Your task to perform on an android device: Open network settings Image 0: 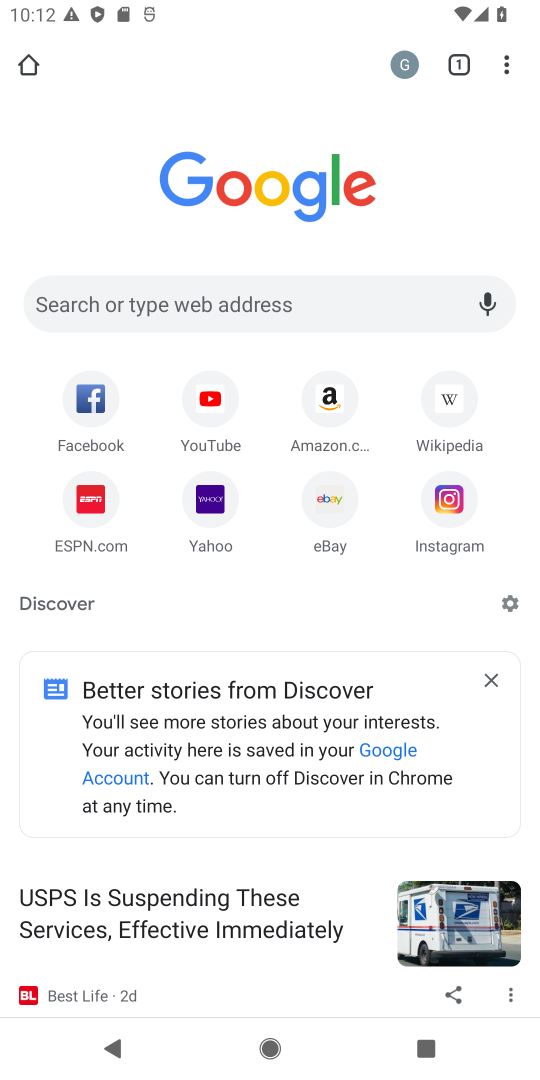
Step 0: click (507, 74)
Your task to perform on an android device: Open network settings Image 1: 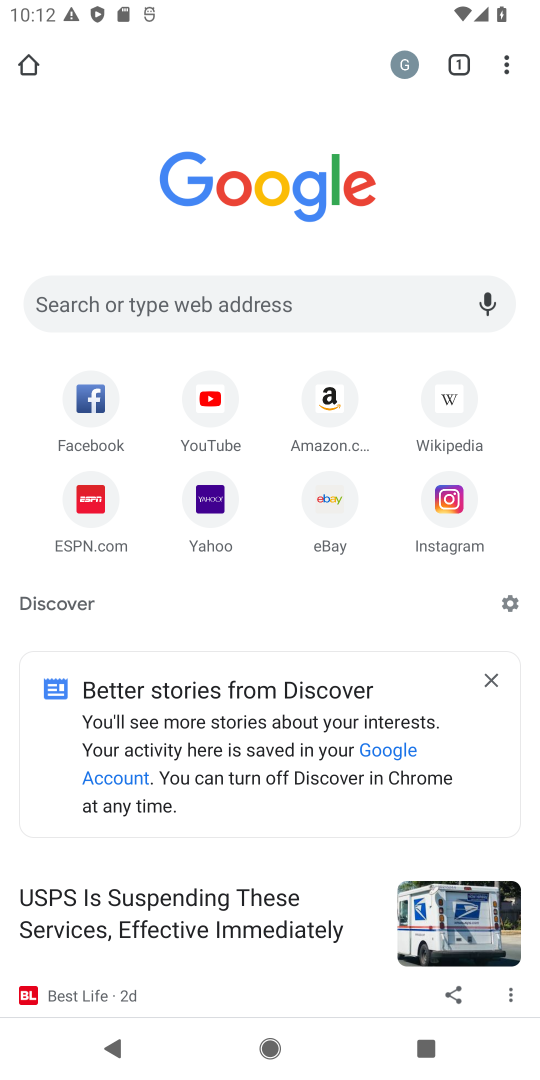
Step 1: click (507, 74)
Your task to perform on an android device: Open network settings Image 2: 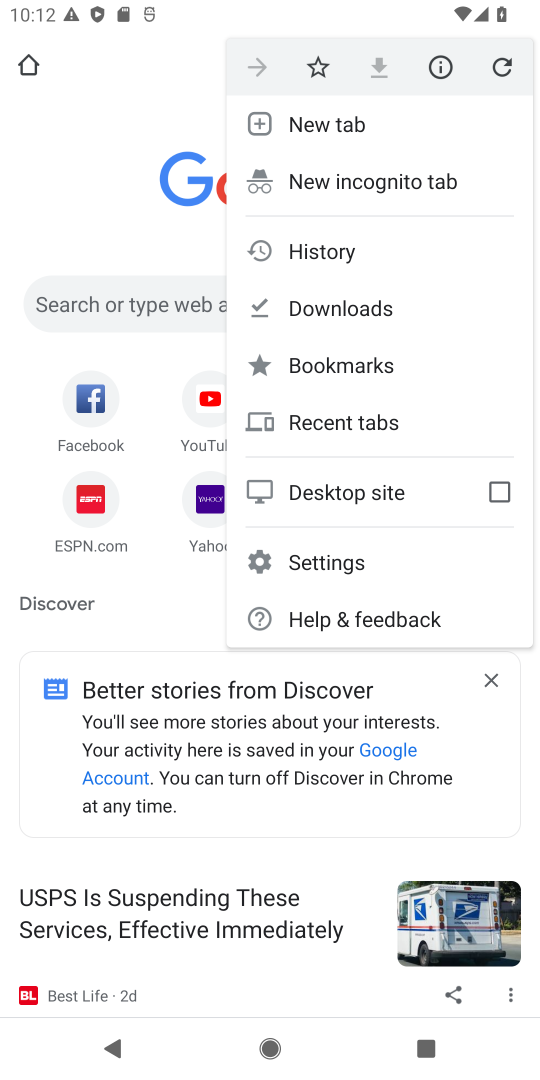
Step 2: click (119, 223)
Your task to perform on an android device: Open network settings Image 3: 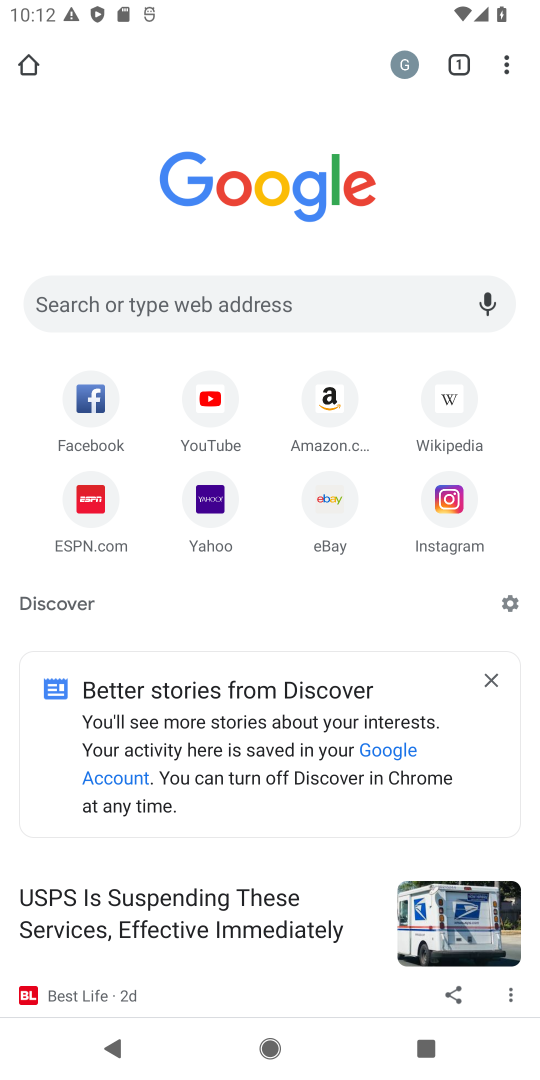
Step 3: press home button
Your task to perform on an android device: Open network settings Image 4: 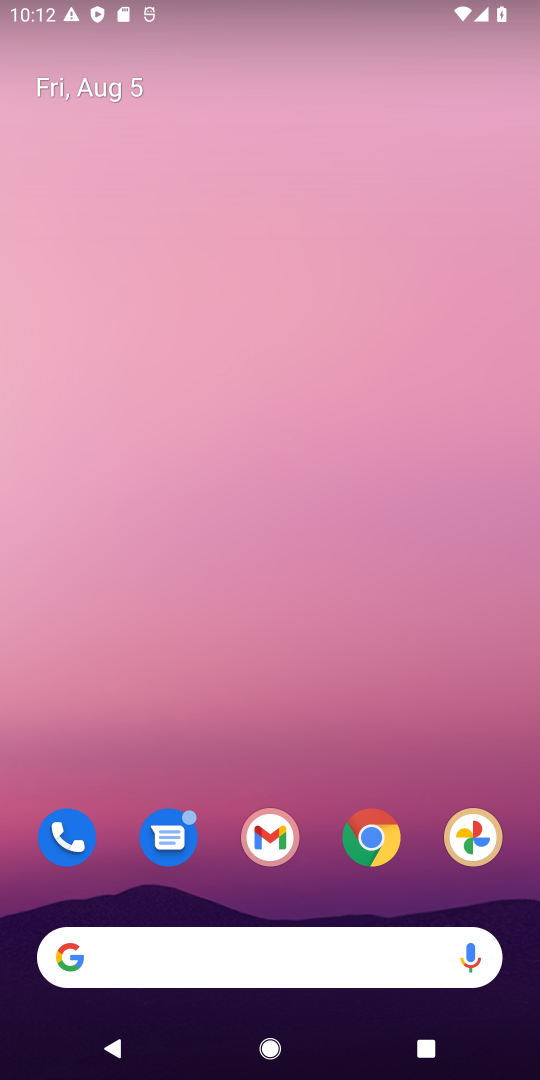
Step 4: drag from (339, 644) to (405, 2)
Your task to perform on an android device: Open network settings Image 5: 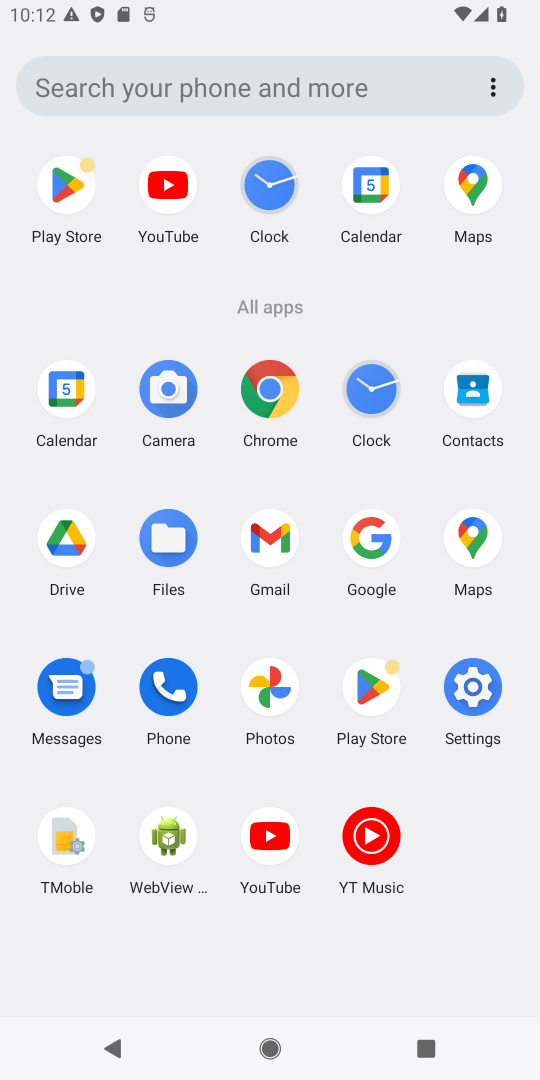
Step 5: click (472, 679)
Your task to perform on an android device: Open network settings Image 6: 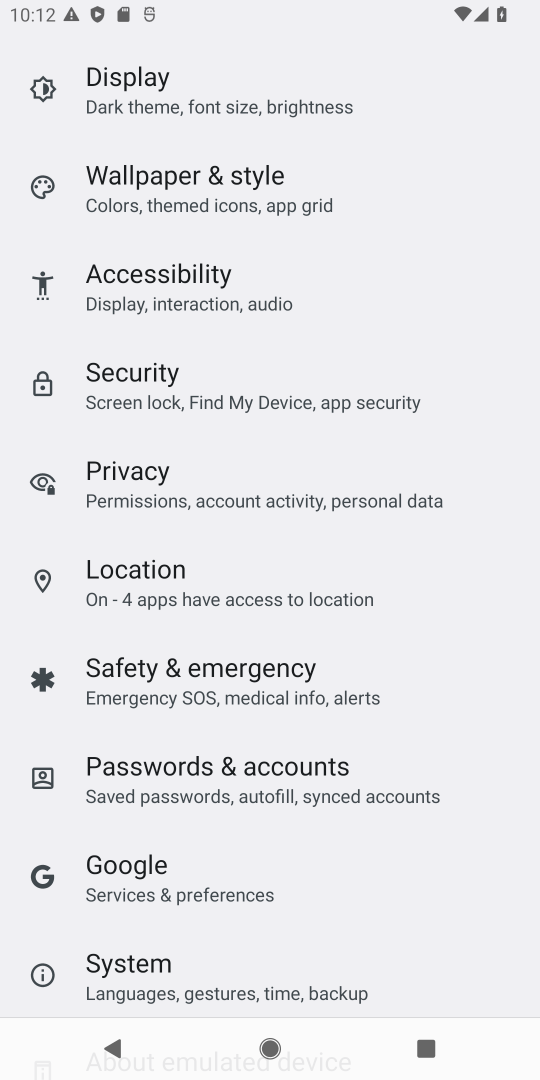
Step 6: drag from (335, 280) to (319, 880)
Your task to perform on an android device: Open network settings Image 7: 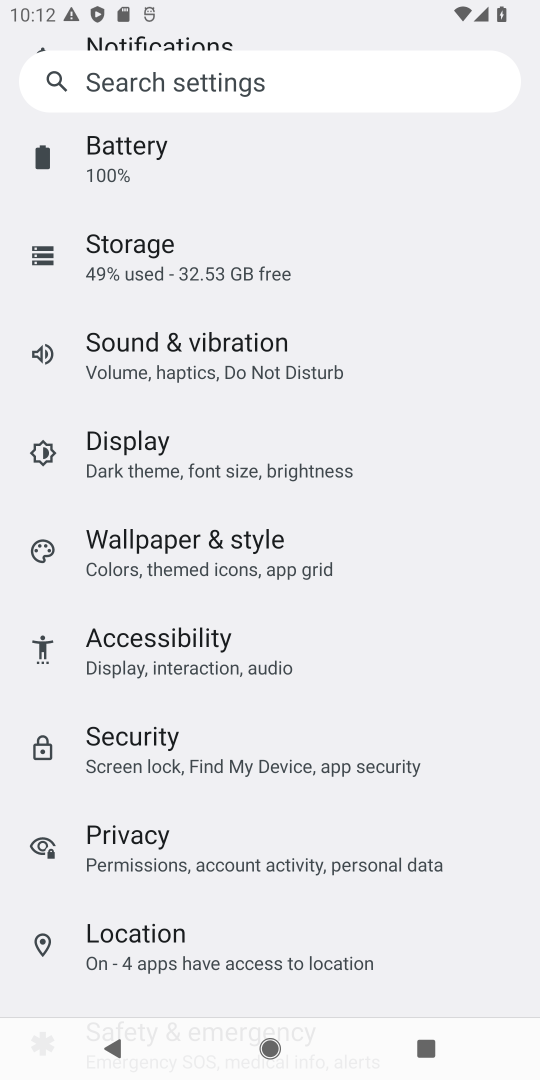
Step 7: drag from (251, 304) to (307, 793)
Your task to perform on an android device: Open network settings Image 8: 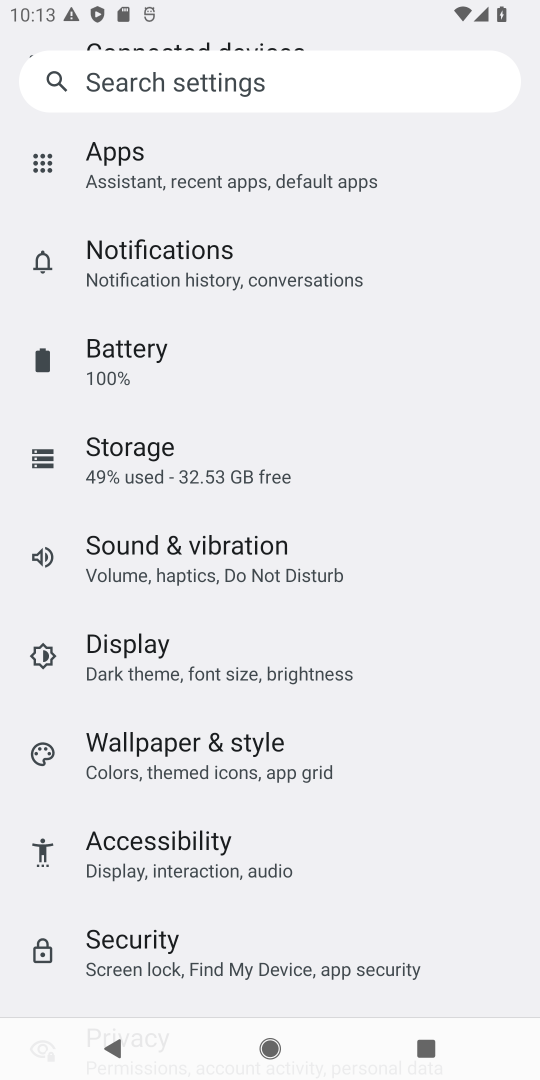
Step 8: drag from (271, 418) to (233, 792)
Your task to perform on an android device: Open network settings Image 9: 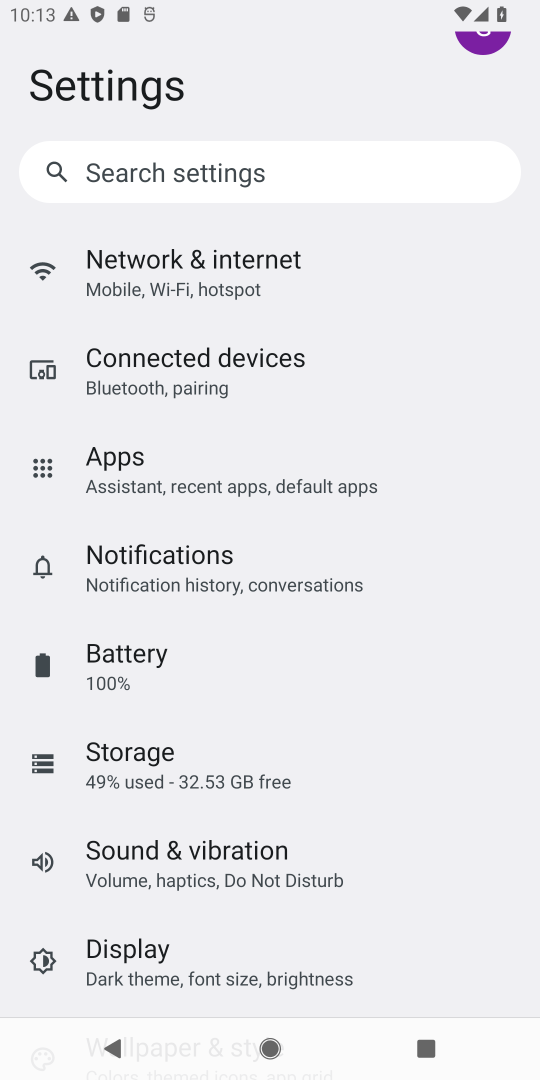
Step 9: click (234, 271)
Your task to perform on an android device: Open network settings Image 10: 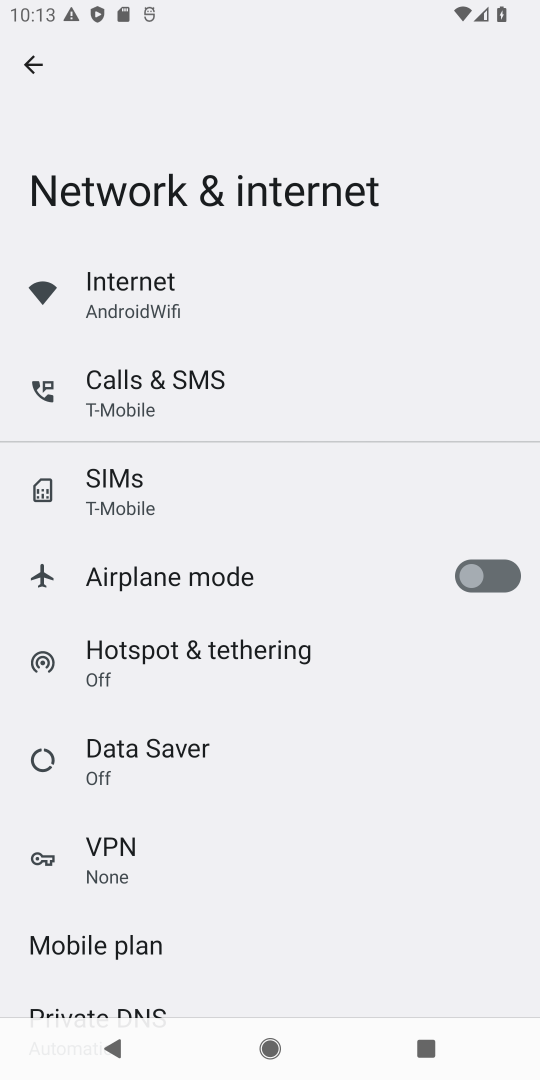
Step 10: task complete